Your task to perform on an android device: open a new tab in the chrome app Image 0: 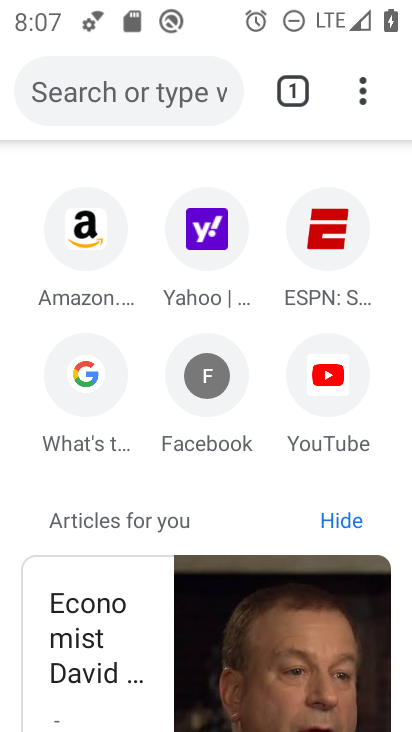
Step 0: press home button
Your task to perform on an android device: open a new tab in the chrome app Image 1: 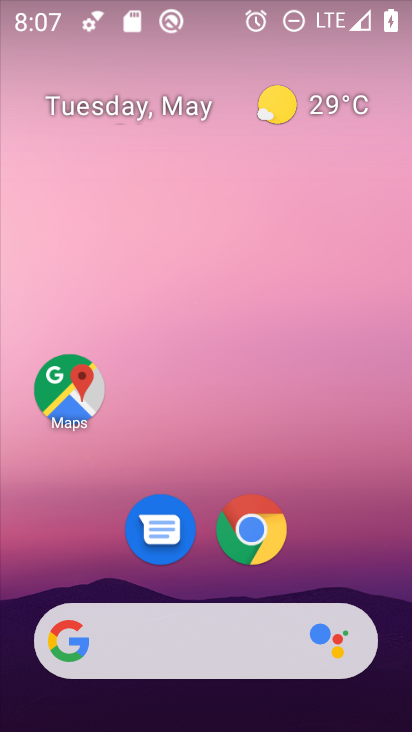
Step 1: drag from (409, 643) to (234, 137)
Your task to perform on an android device: open a new tab in the chrome app Image 2: 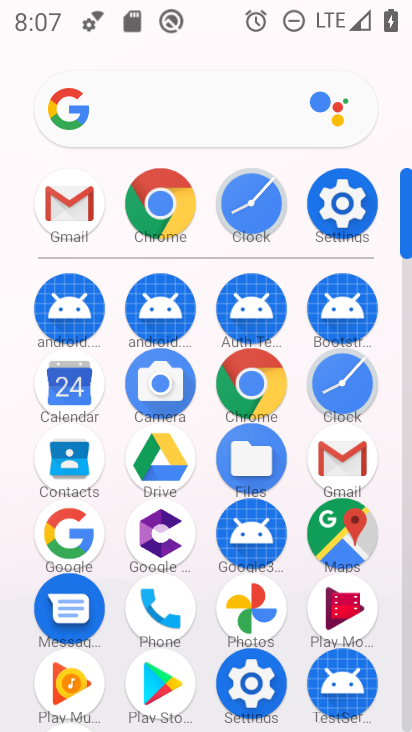
Step 2: click (178, 210)
Your task to perform on an android device: open a new tab in the chrome app Image 3: 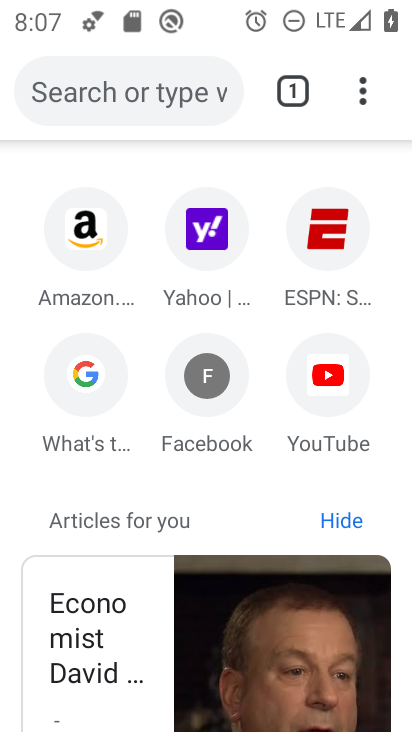
Step 3: click (368, 87)
Your task to perform on an android device: open a new tab in the chrome app Image 4: 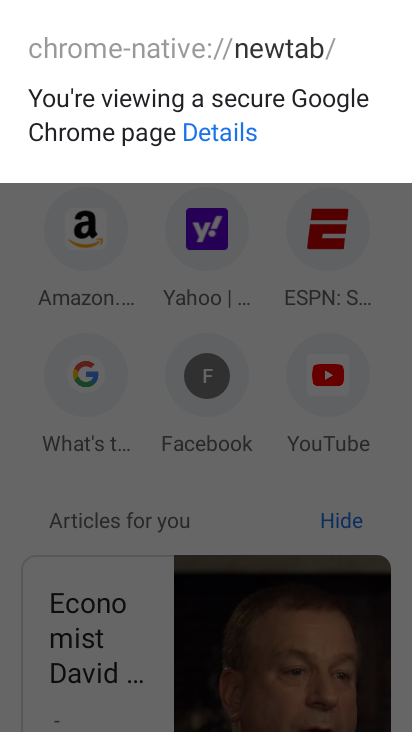
Step 4: press back button
Your task to perform on an android device: open a new tab in the chrome app Image 5: 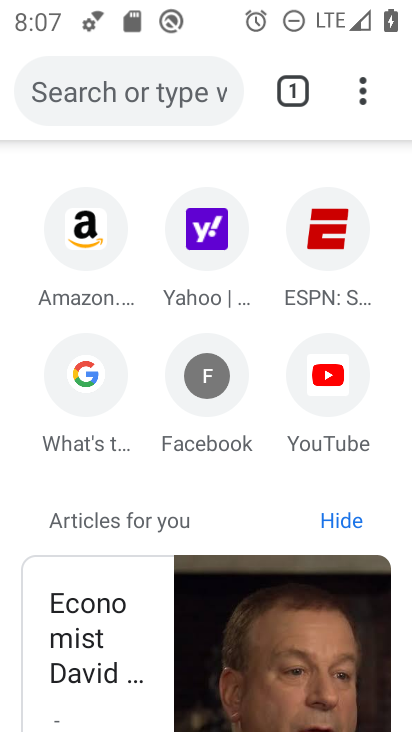
Step 5: click (369, 90)
Your task to perform on an android device: open a new tab in the chrome app Image 6: 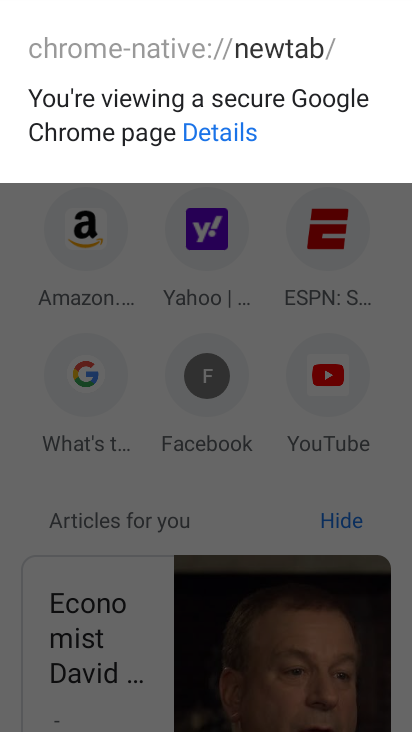
Step 6: press back button
Your task to perform on an android device: open a new tab in the chrome app Image 7: 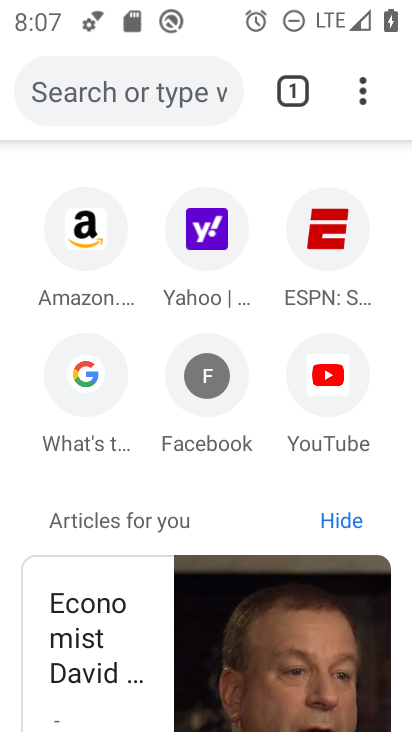
Step 7: click (370, 82)
Your task to perform on an android device: open a new tab in the chrome app Image 8: 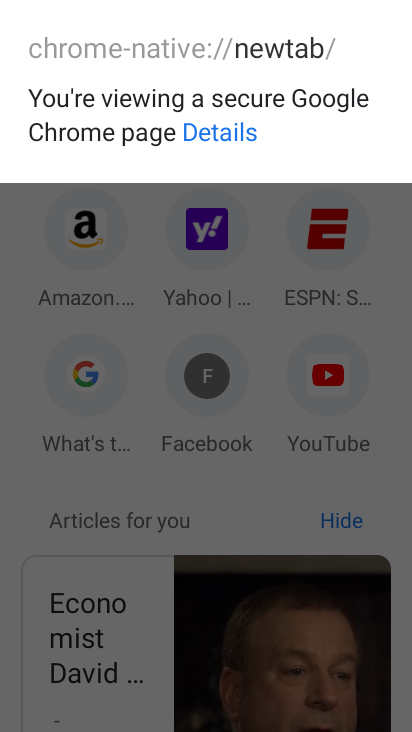
Step 8: press back button
Your task to perform on an android device: open a new tab in the chrome app Image 9: 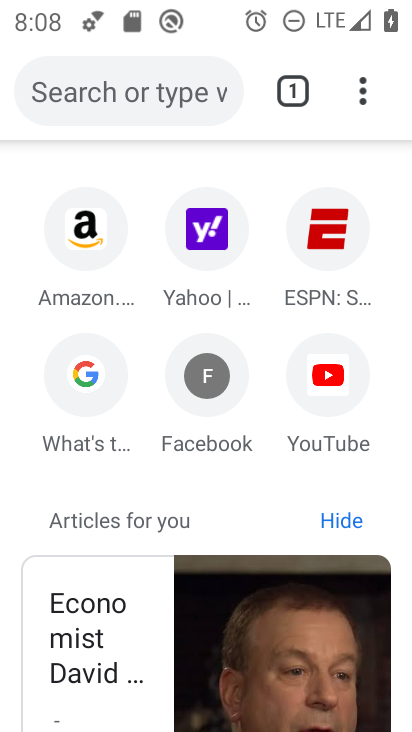
Step 9: click (363, 86)
Your task to perform on an android device: open a new tab in the chrome app Image 10: 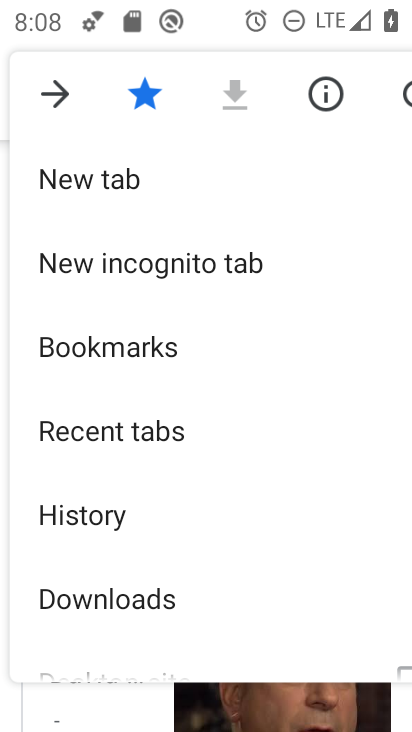
Step 10: click (100, 194)
Your task to perform on an android device: open a new tab in the chrome app Image 11: 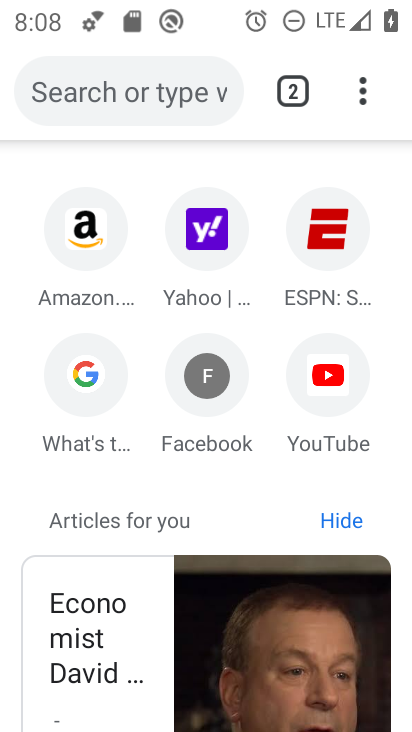
Step 11: task complete